Your task to perform on an android device: see tabs open on other devices in the chrome app Image 0: 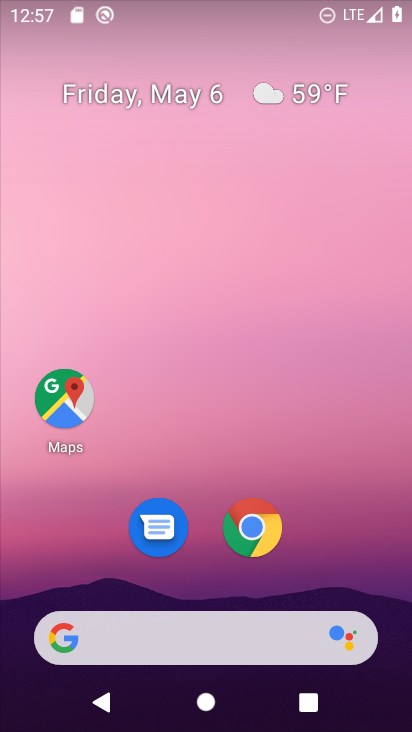
Step 0: click (253, 531)
Your task to perform on an android device: see tabs open on other devices in the chrome app Image 1: 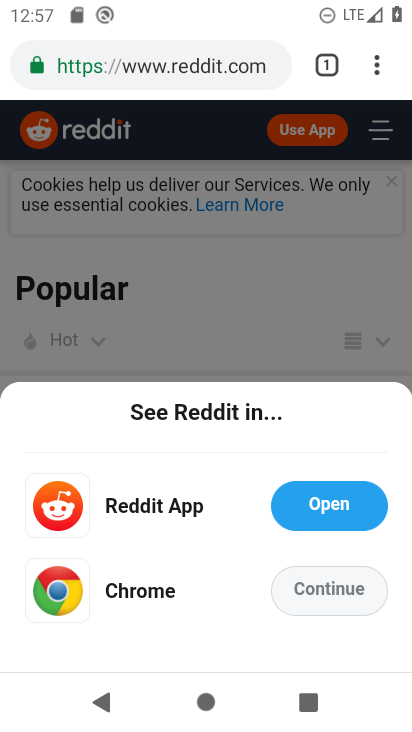
Step 1: click (374, 65)
Your task to perform on an android device: see tabs open on other devices in the chrome app Image 2: 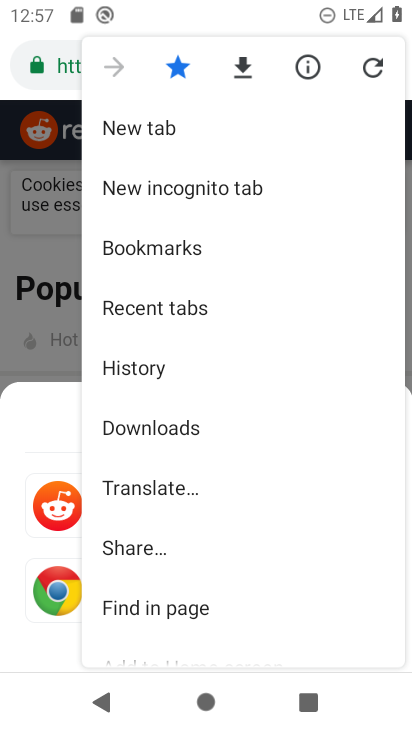
Step 2: click (197, 306)
Your task to perform on an android device: see tabs open on other devices in the chrome app Image 3: 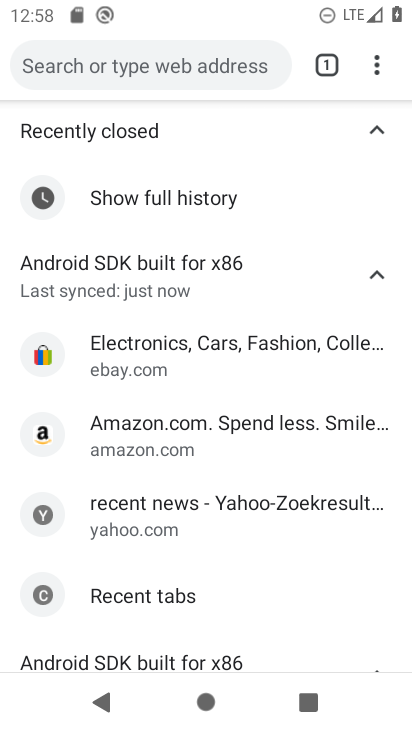
Step 3: task complete